Your task to perform on an android device: turn off picture-in-picture Image 0: 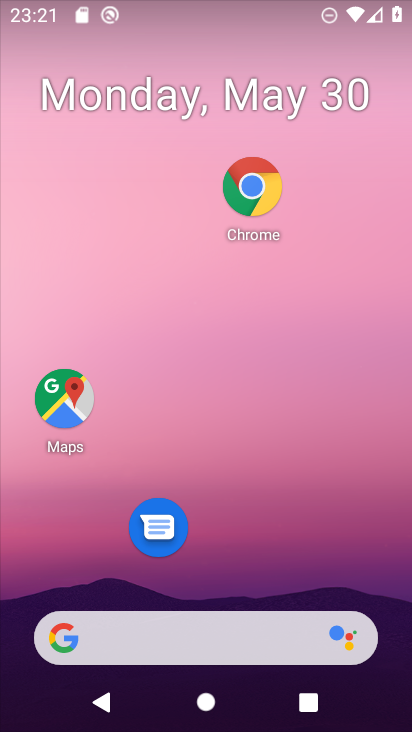
Step 0: drag from (288, 545) to (302, 244)
Your task to perform on an android device: turn off picture-in-picture Image 1: 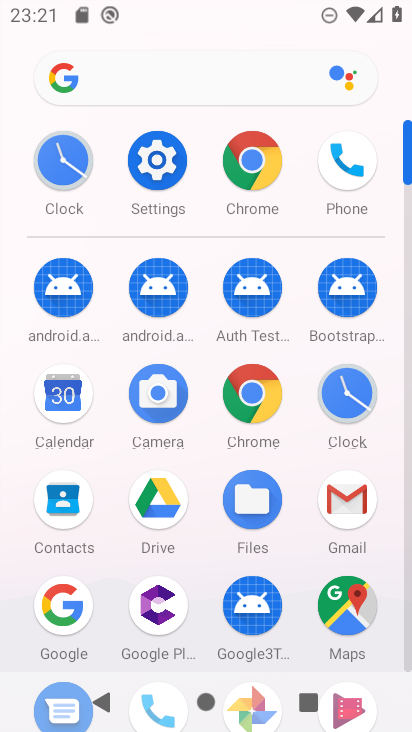
Step 1: click (146, 149)
Your task to perform on an android device: turn off picture-in-picture Image 2: 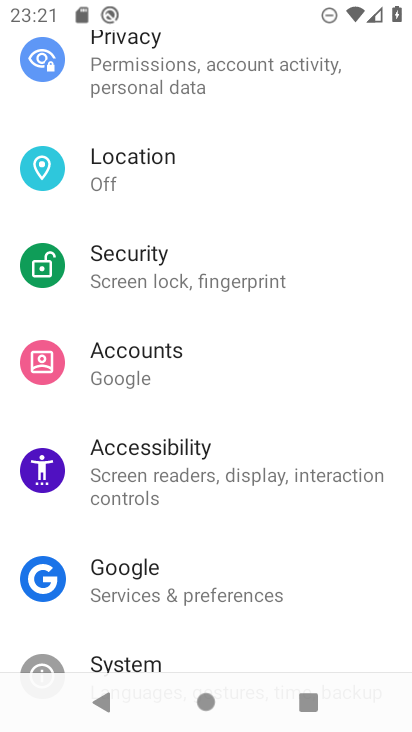
Step 2: drag from (210, 133) to (199, 576)
Your task to perform on an android device: turn off picture-in-picture Image 3: 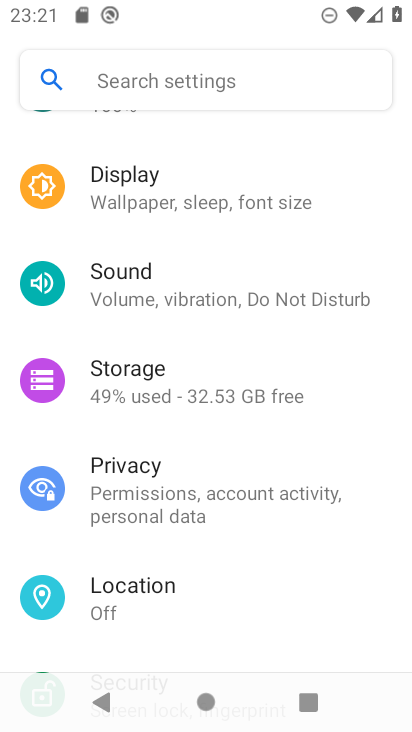
Step 3: drag from (206, 198) to (190, 553)
Your task to perform on an android device: turn off picture-in-picture Image 4: 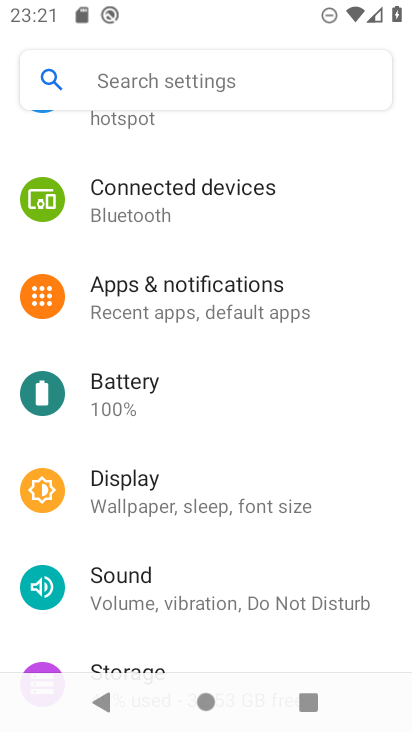
Step 4: drag from (239, 199) to (240, 489)
Your task to perform on an android device: turn off picture-in-picture Image 5: 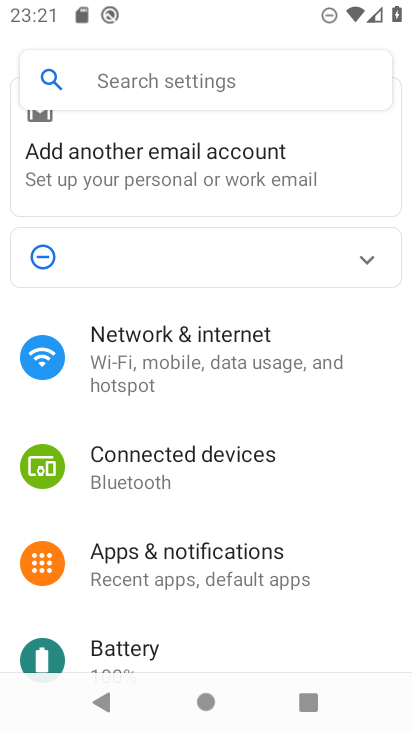
Step 5: drag from (214, 619) to (210, 366)
Your task to perform on an android device: turn off picture-in-picture Image 6: 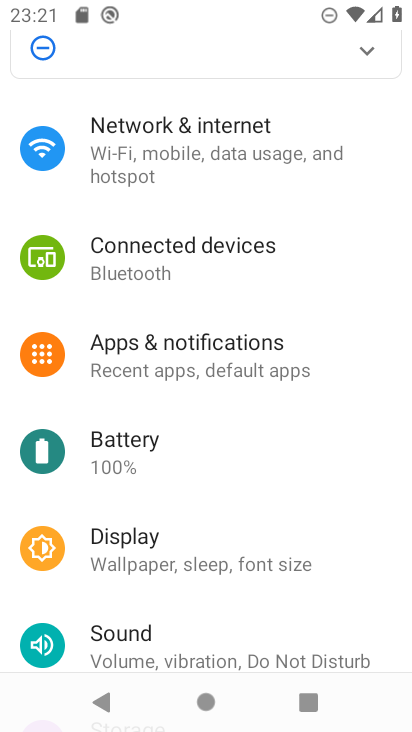
Step 6: click (197, 363)
Your task to perform on an android device: turn off picture-in-picture Image 7: 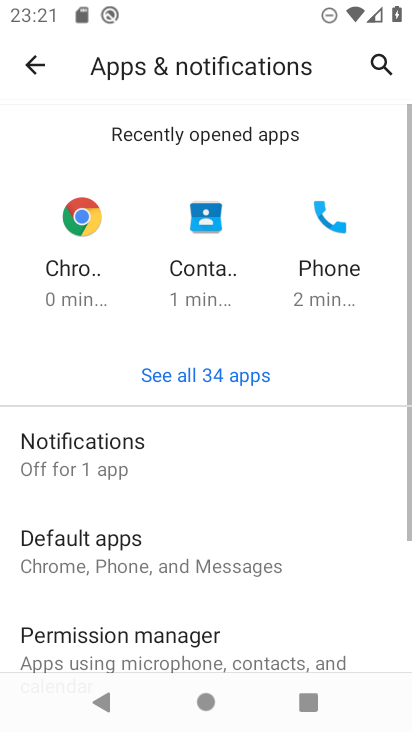
Step 7: drag from (246, 559) to (244, 228)
Your task to perform on an android device: turn off picture-in-picture Image 8: 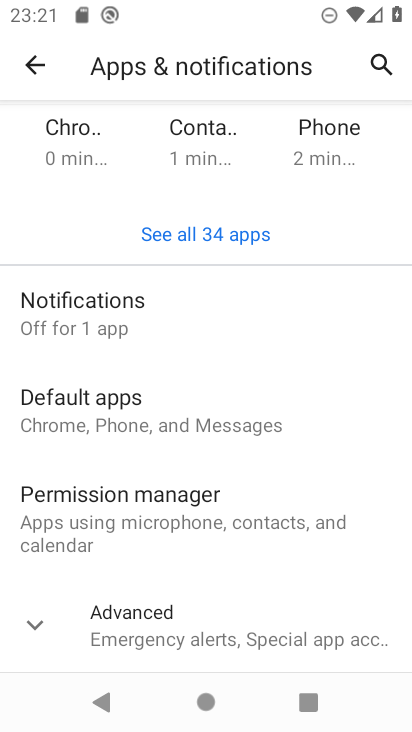
Step 8: click (181, 629)
Your task to perform on an android device: turn off picture-in-picture Image 9: 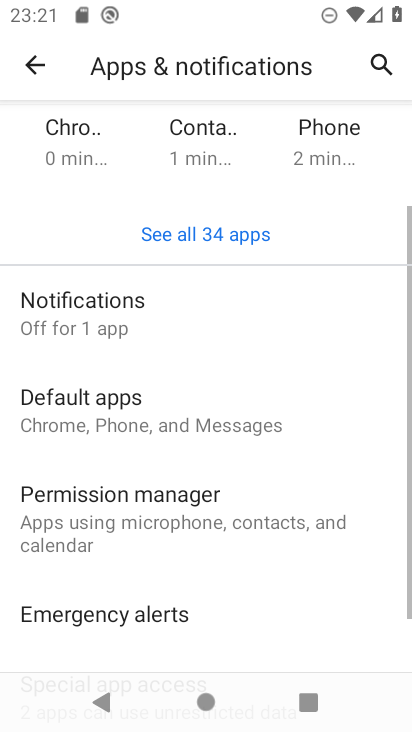
Step 9: drag from (236, 617) to (243, 252)
Your task to perform on an android device: turn off picture-in-picture Image 10: 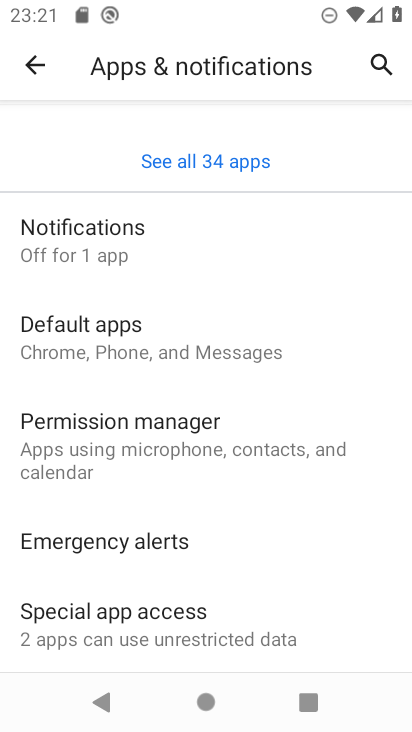
Step 10: click (184, 639)
Your task to perform on an android device: turn off picture-in-picture Image 11: 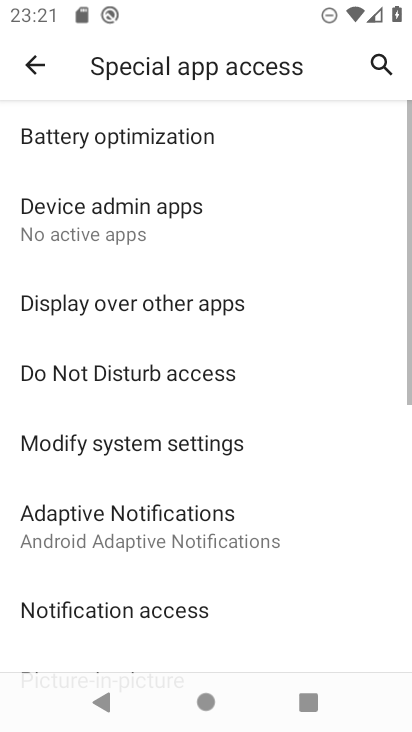
Step 11: drag from (218, 553) to (231, 203)
Your task to perform on an android device: turn off picture-in-picture Image 12: 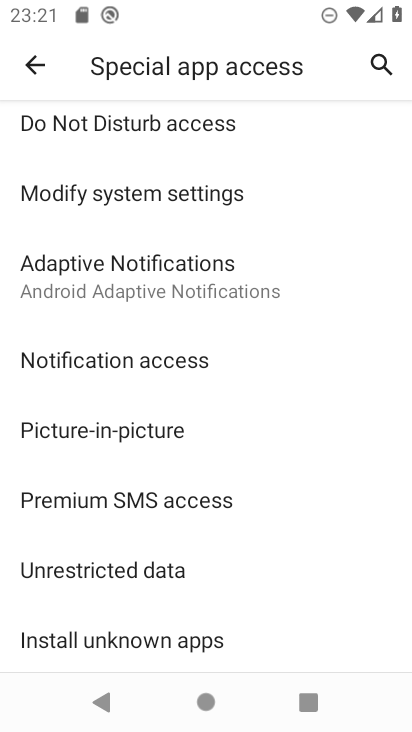
Step 12: click (128, 424)
Your task to perform on an android device: turn off picture-in-picture Image 13: 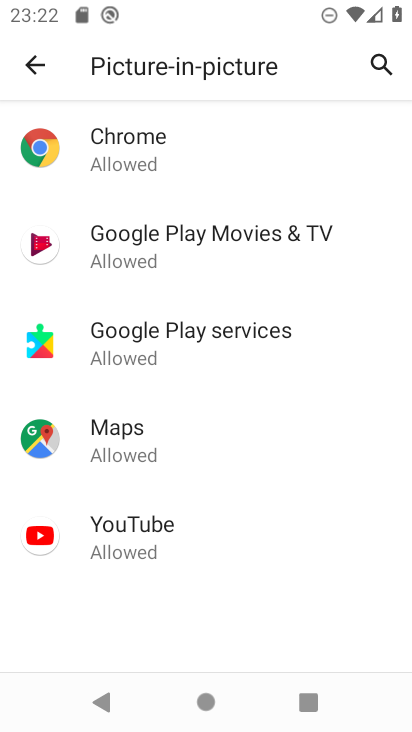
Step 13: click (149, 528)
Your task to perform on an android device: turn off picture-in-picture Image 14: 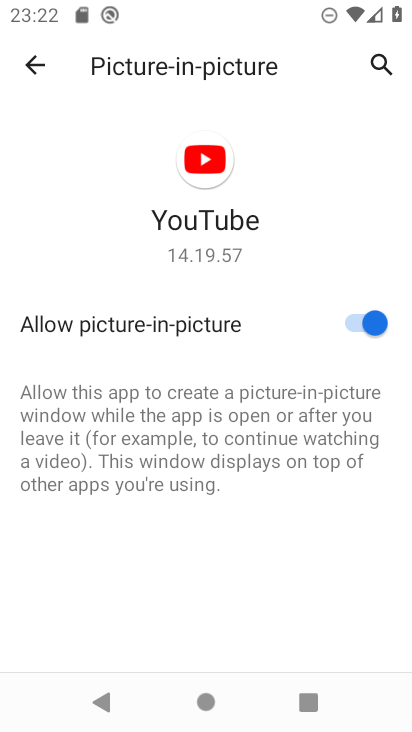
Step 14: click (357, 325)
Your task to perform on an android device: turn off picture-in-picture Image 15: 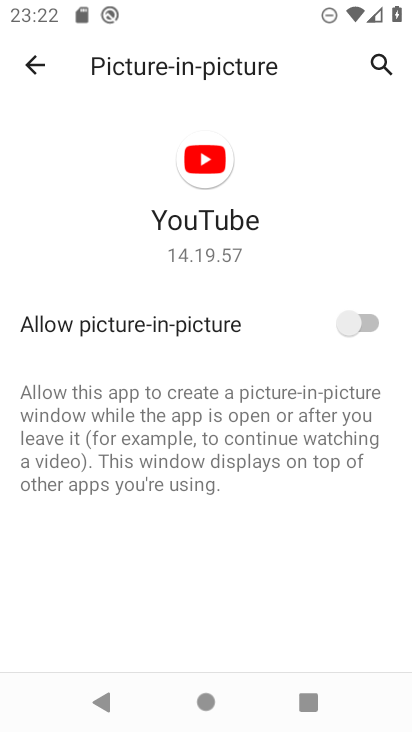
Step 15: task complete